Your task to perform on an android device: change notification settings in the gmail app Image 0: 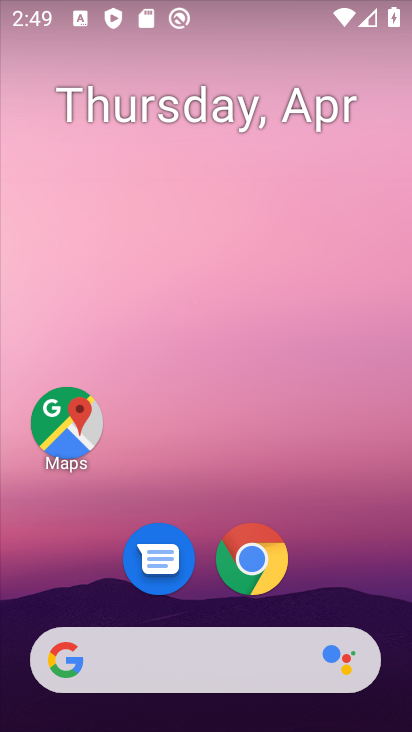
Step 0: drag from (301, 546) to (262, 159)
Your task to perform on an android device: change notification settings in the gmail app Image 1: 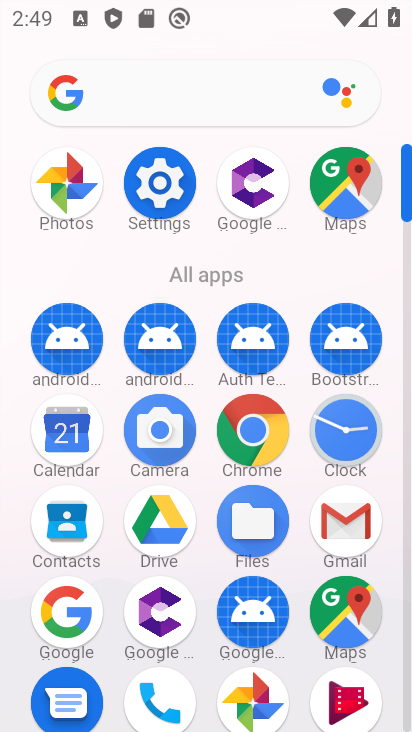
Step 1: click (339, 528)
Your task to perform on an android device: change notification settings in the gmail app Image 2: 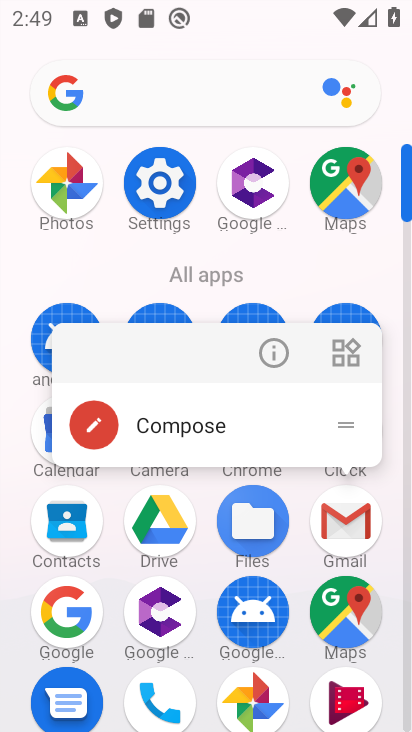
Step 2: click (339, 528)
Your task to perform on an android device: change notification settings in the gmail app Image 3: 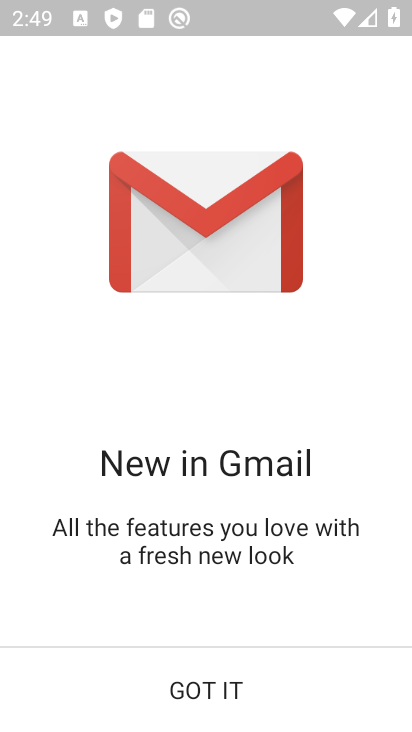
Step 3: click (235, 705)
Your task to perform on an android device: change notification settings in the gmail app Image 4: 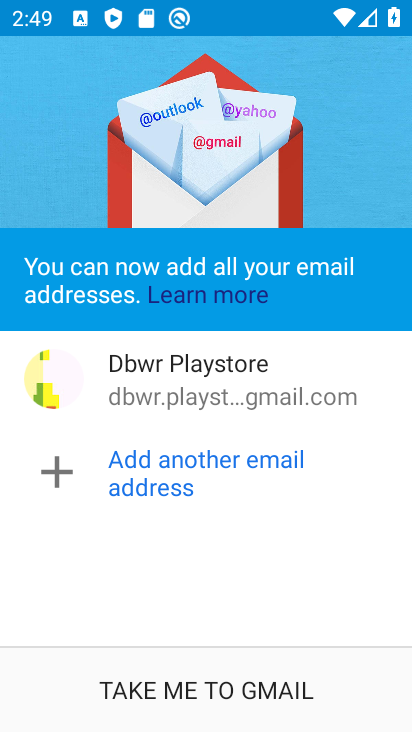
Step 4: click (235, 699)
Your task to perform on an android device: change notification settings in the gmail app Image 5: 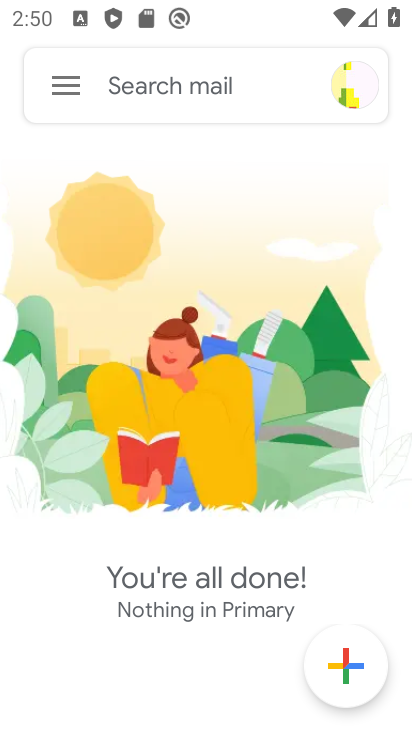
Step 5: click (61, 101)
Your task to perform on an android device: change notification settings in the gmail app Image 6: 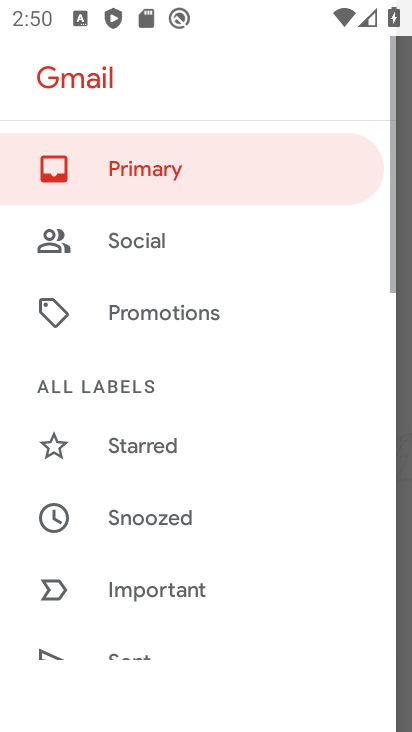
Step 6: drag from (204, 570) to (235, 101)
Your task to perform on an android device: change notification settings in the gmail app Image 7: 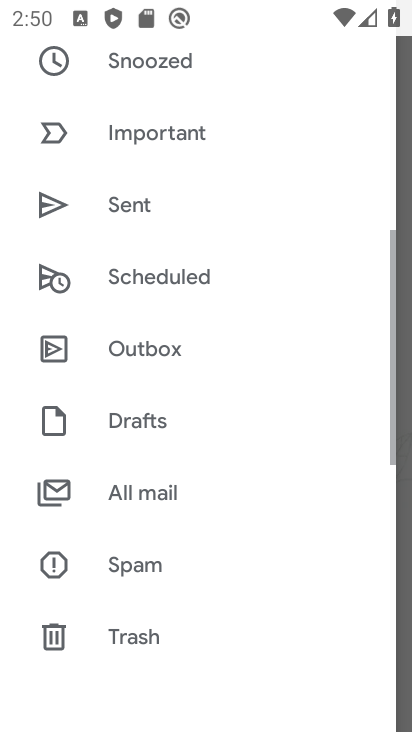
Step 7: drag from (225, 518) to (251, 74)
Your task to perform on an android device: change notification settings in the gmail app Image 8: 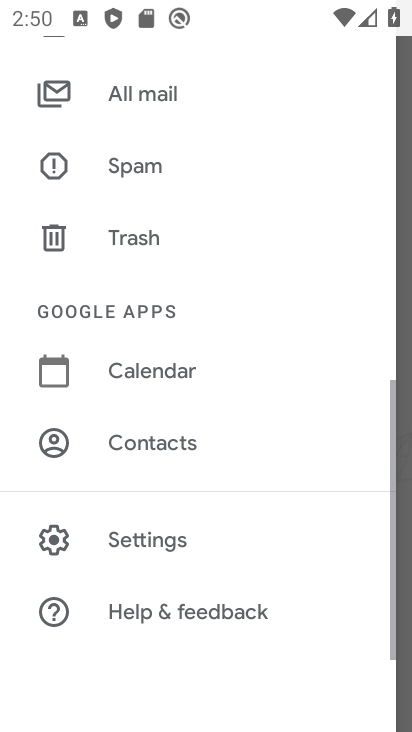
Step 8: click (168, 528)
Your task to perform on an android device: change notification settings in the gmail app Image 9: 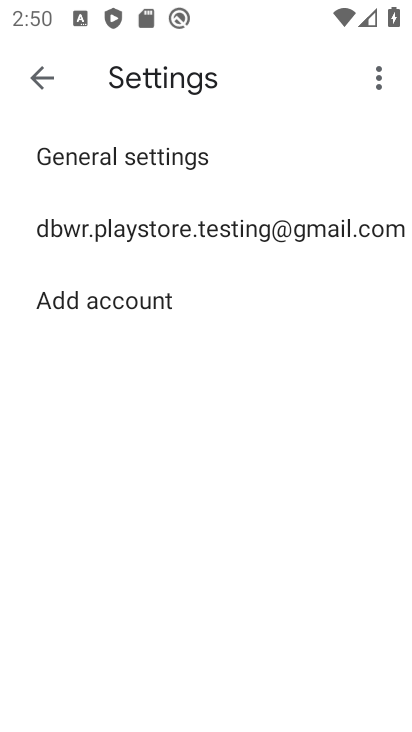
Step 9: click (188, 221)
Your task to perform on an android device: change notification settings in the gmail app Image 10: 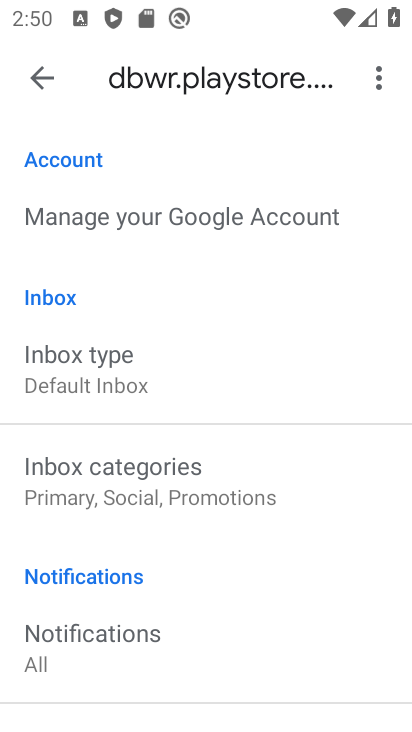
Step 10: click (149, 631)
Your task to perform on an android device: change notification settings in the gmail app Image 11: 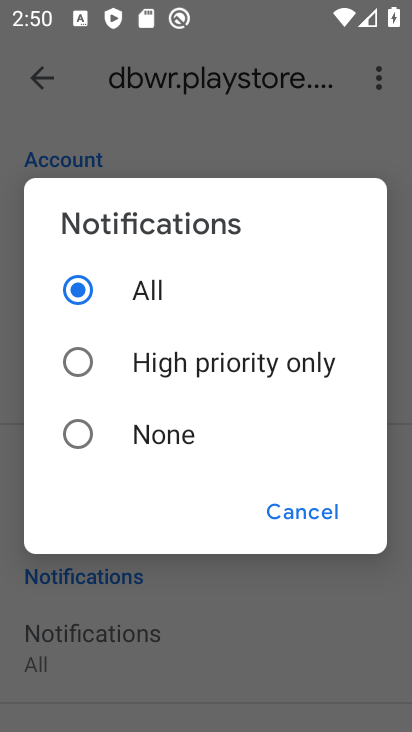
Step 11: click (86, 375)
Your task to perform on an android device: change notification settings in the gmail app Image 12: 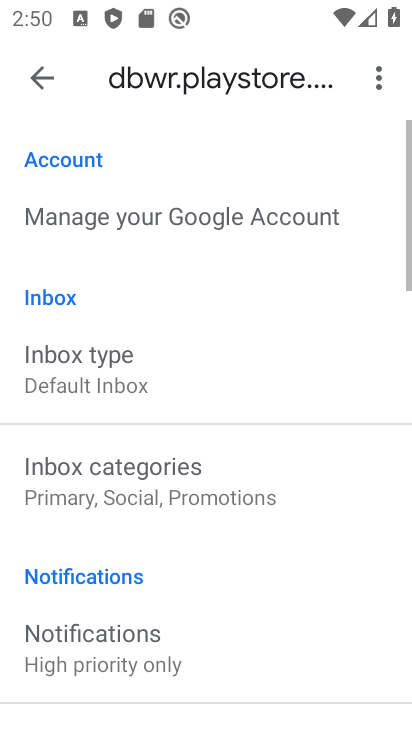
Step 12: task complete